Your task to perform on an android device: What's the news in Brazil? Image 0: 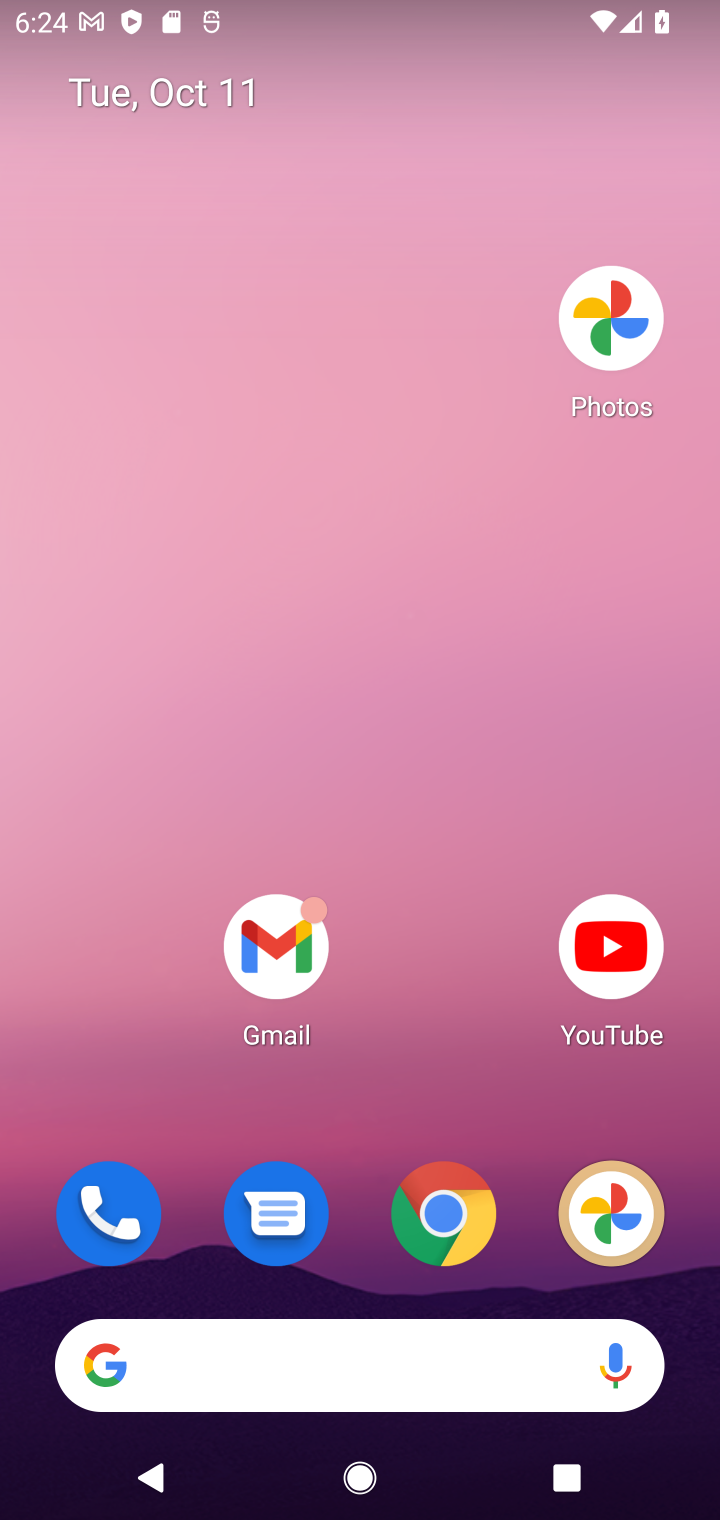
Step 0: drag from (387, 1024) to (457, 134)
Your task to perform on an android device: What's the news in Brazil? Image 1: 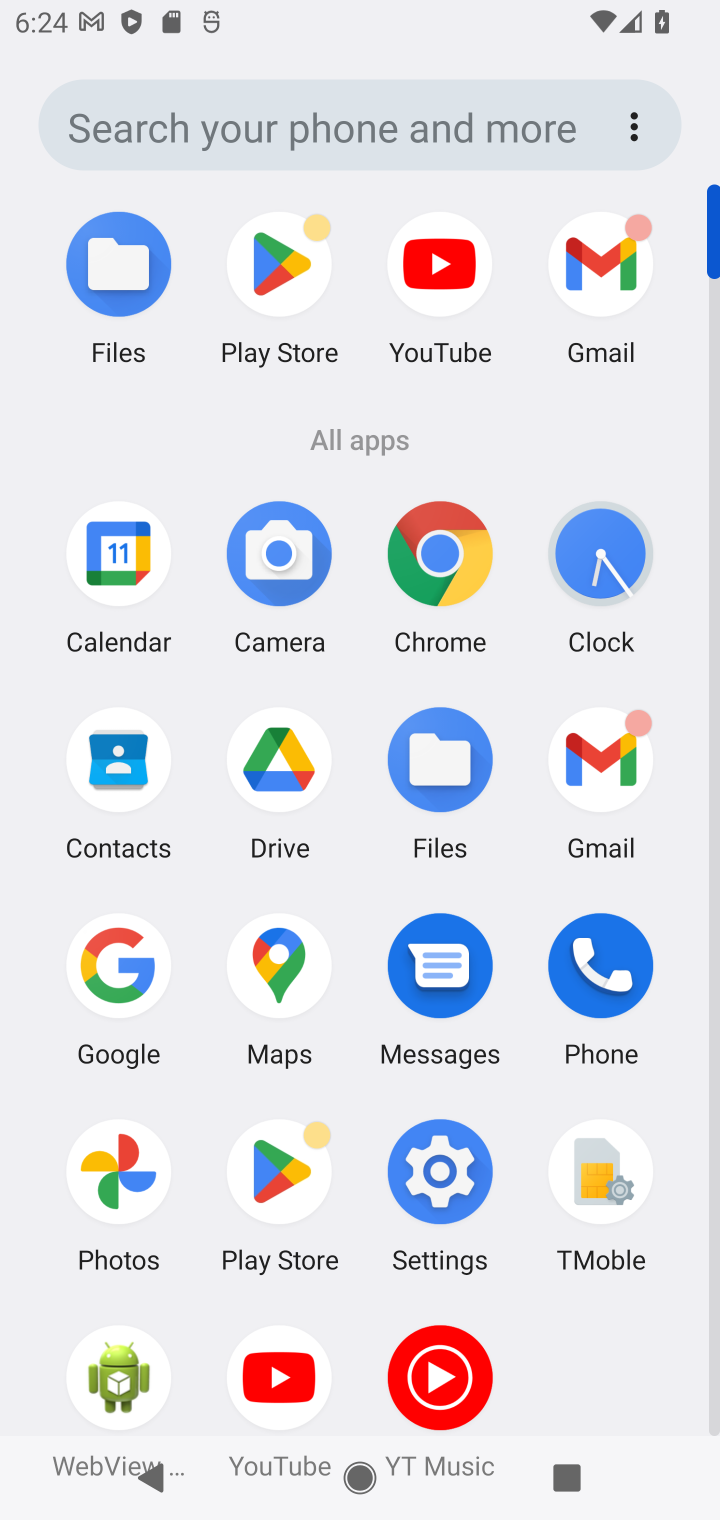
Step 1: click (463, 552)
Your task to perform on an android device: What's the news in Brazil? Image 2: 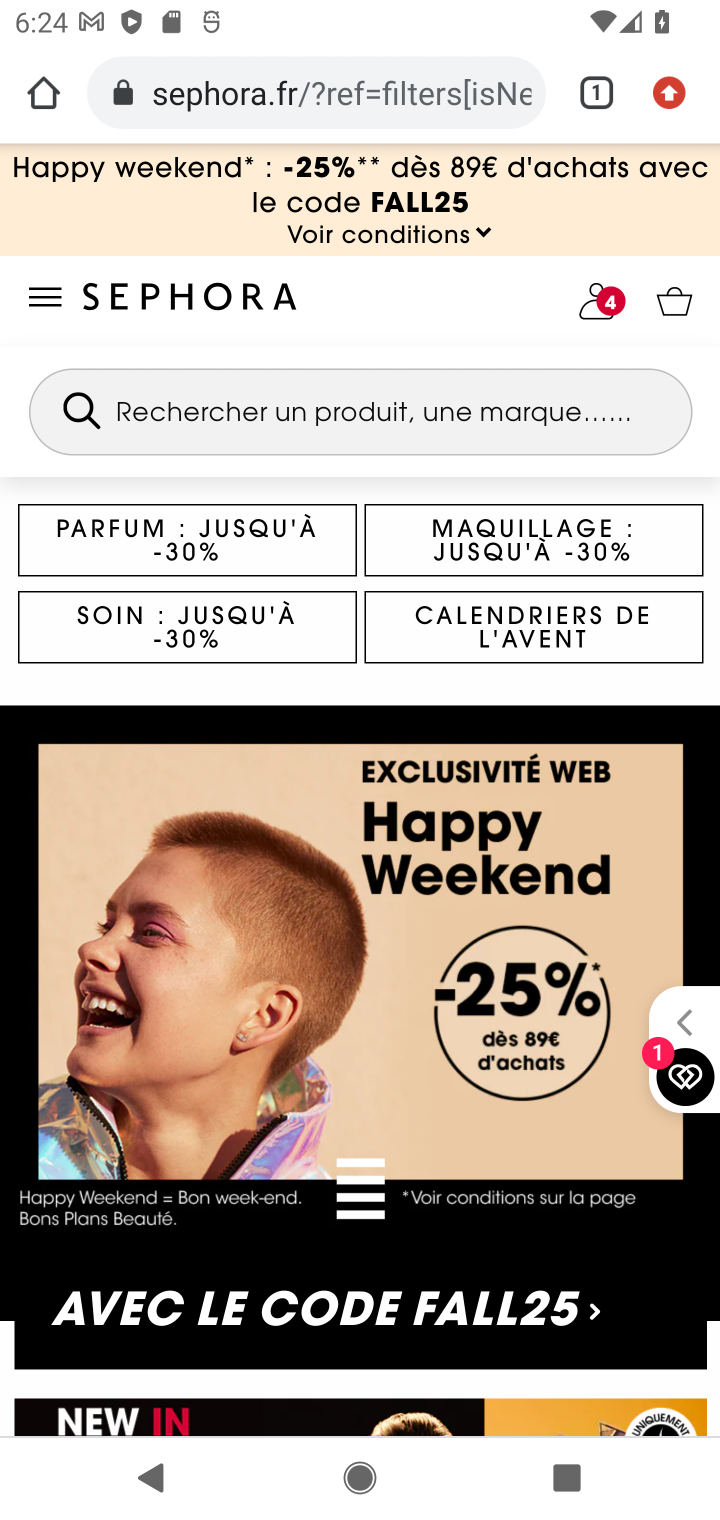
Step 2: click (299, 73)
Your task to perform on an android device: What's the news in Brazil? Image 3: 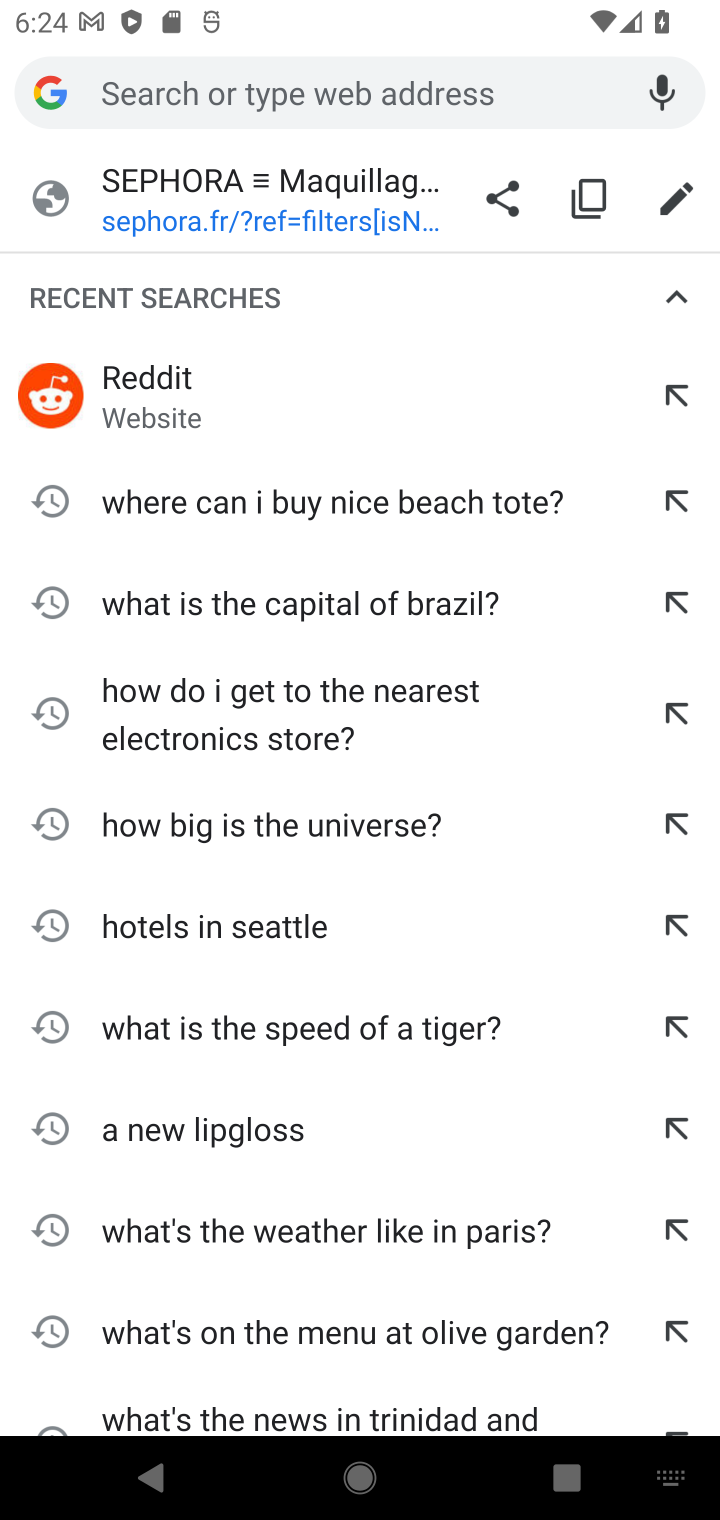
Step 3: type "What's the news in Brazil?"
Your task to perform on an android device: What's the news in Brazil? Image 4: 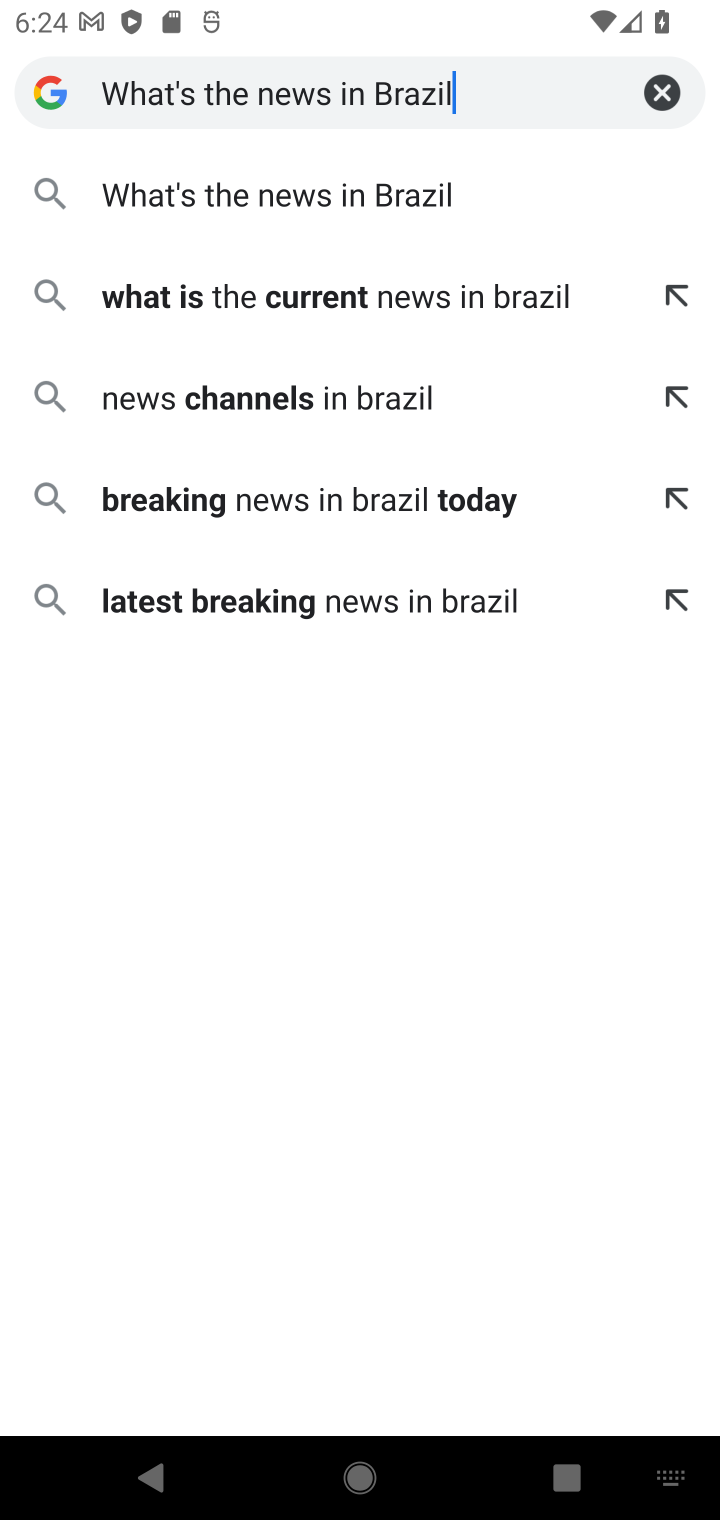
Step 4: type ""
Your task to perform on an android device: What's the news in Brazil? Image 5: 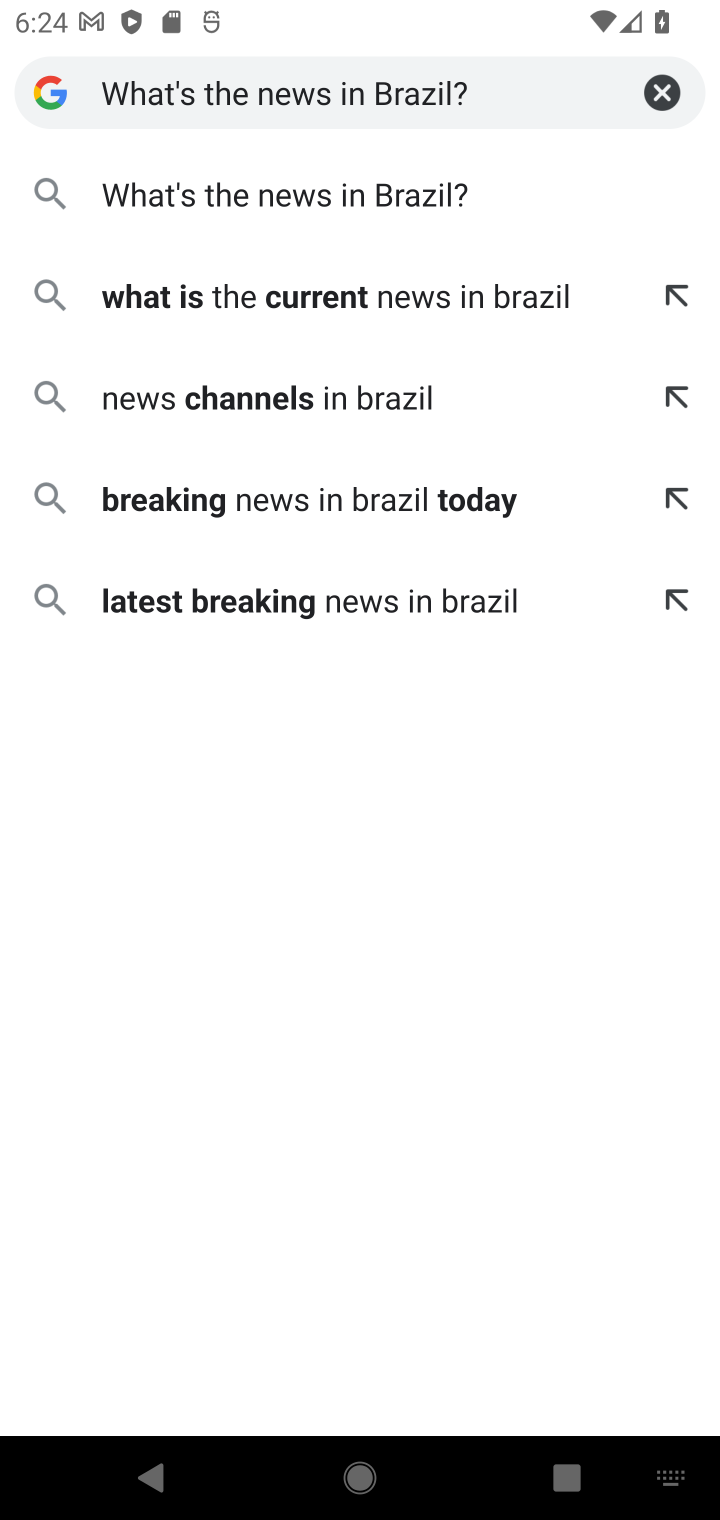
Step 5: press enter
Your task to perform on an android device: What's the news in Brazil? Image 6: 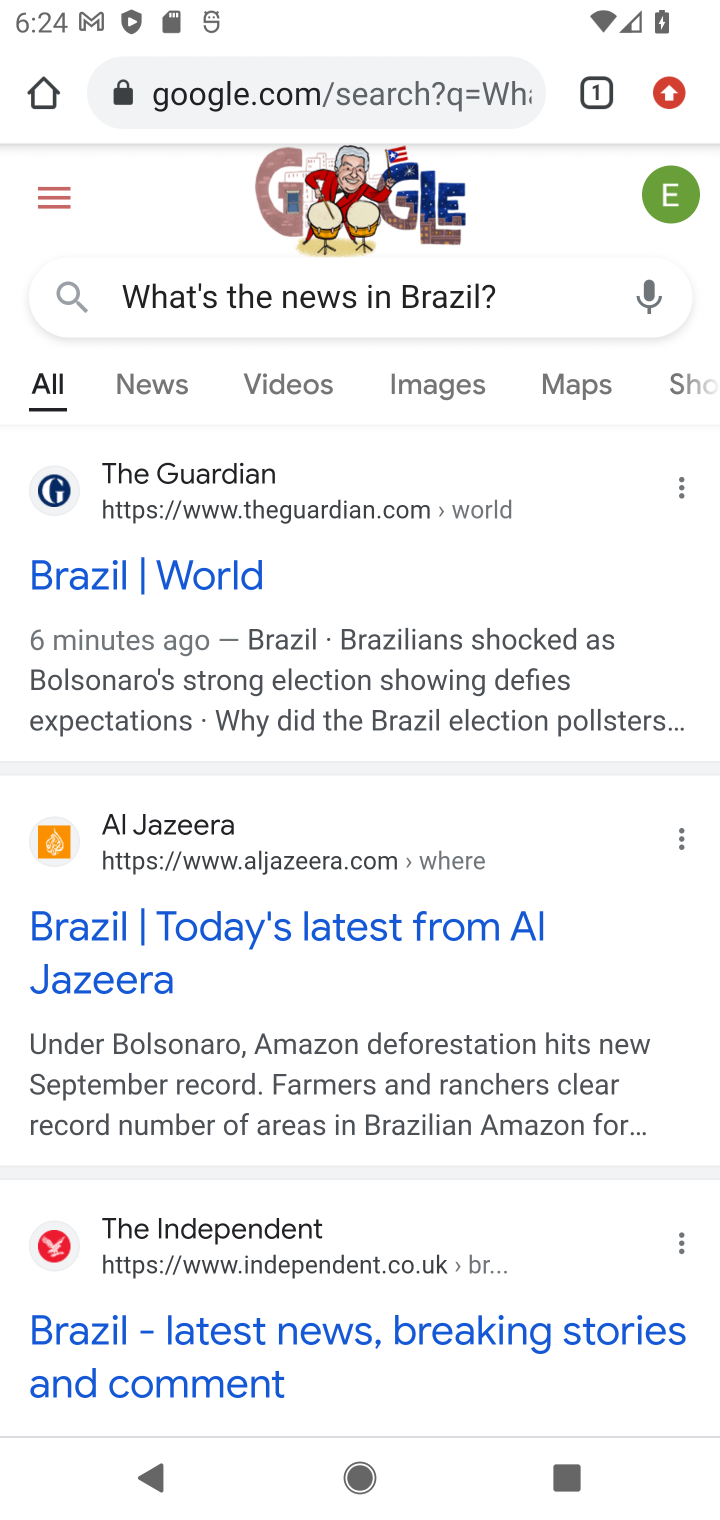
Step 6: click (151, 565)
Your task to perform on an android device: What's the news in Brazil? Image 7: 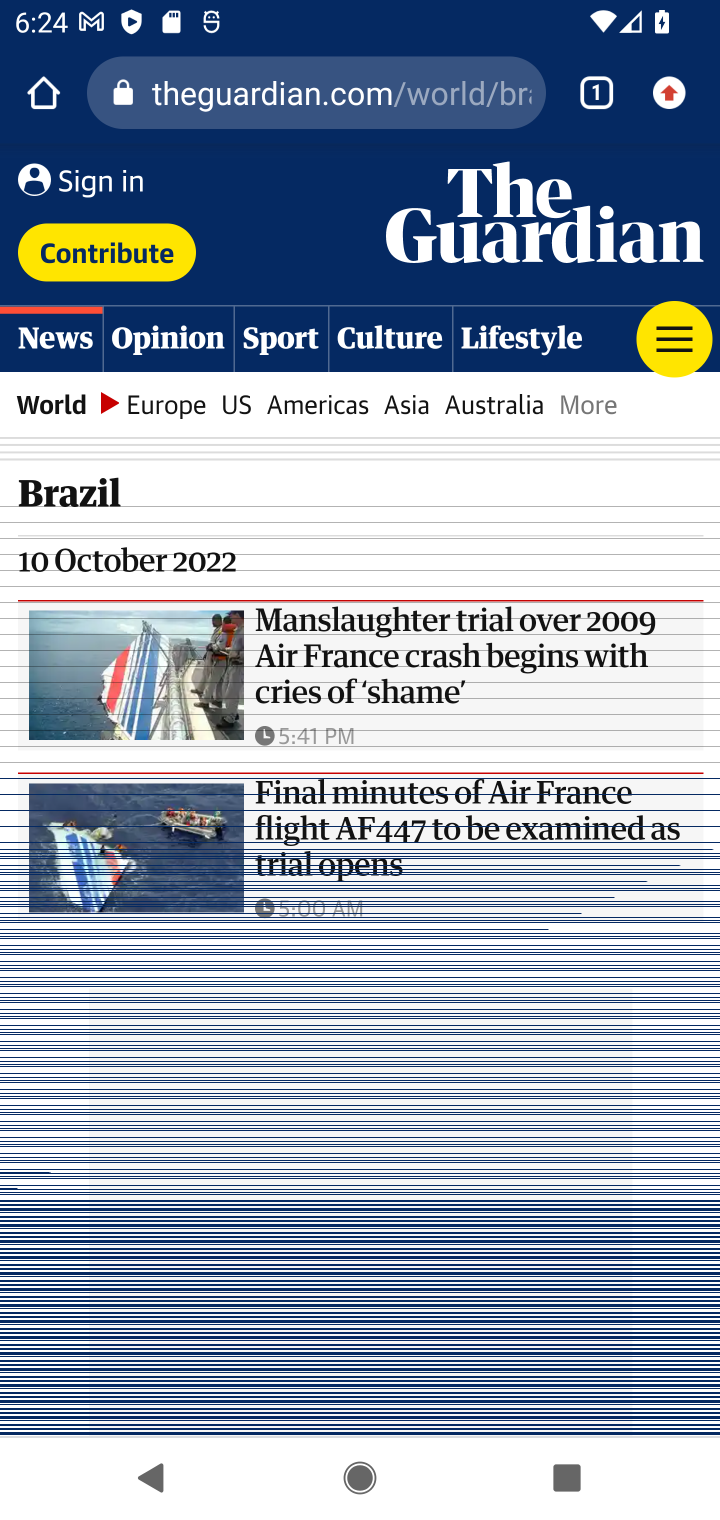
Step 7: drag from (632, 976) to (569, 344)
Your task to perform on an android device: What's the news in Brazil? Image 8: 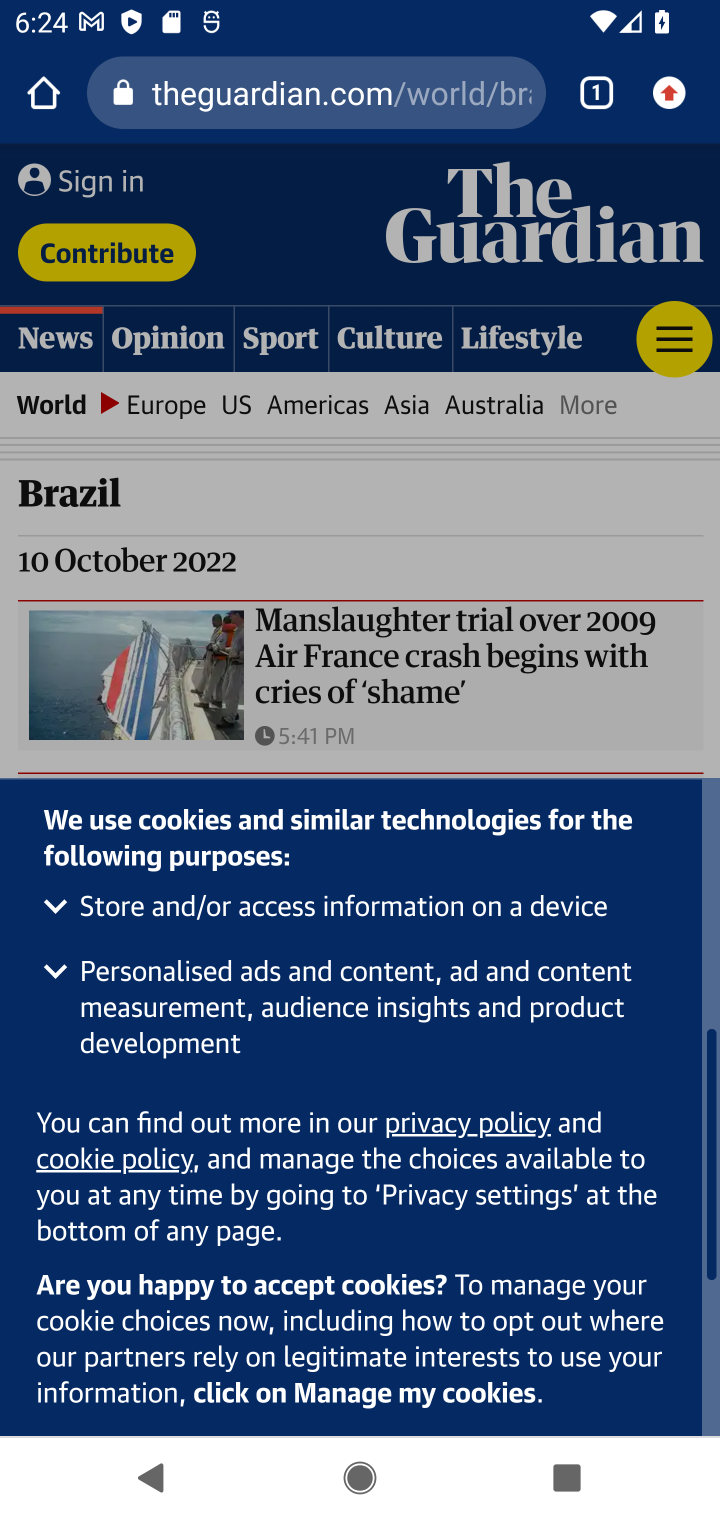
Step 8: drag from (558, 662) to (565, 353)
Your task to perform on an android device: What's the news in Brazil? Image 9: 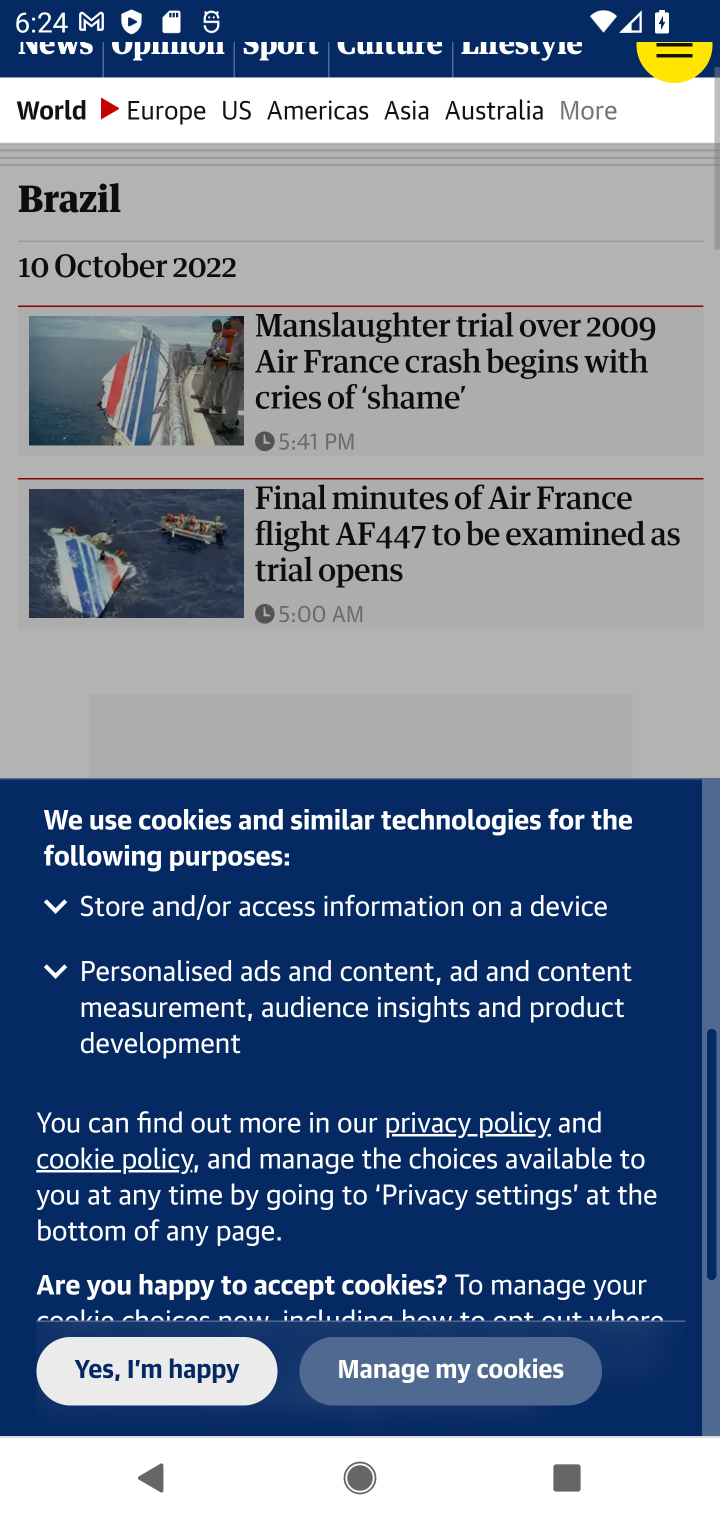
Step 9: click (558, 712)
Your task to perform on an android device: What's the news in Brazil? Image 10: 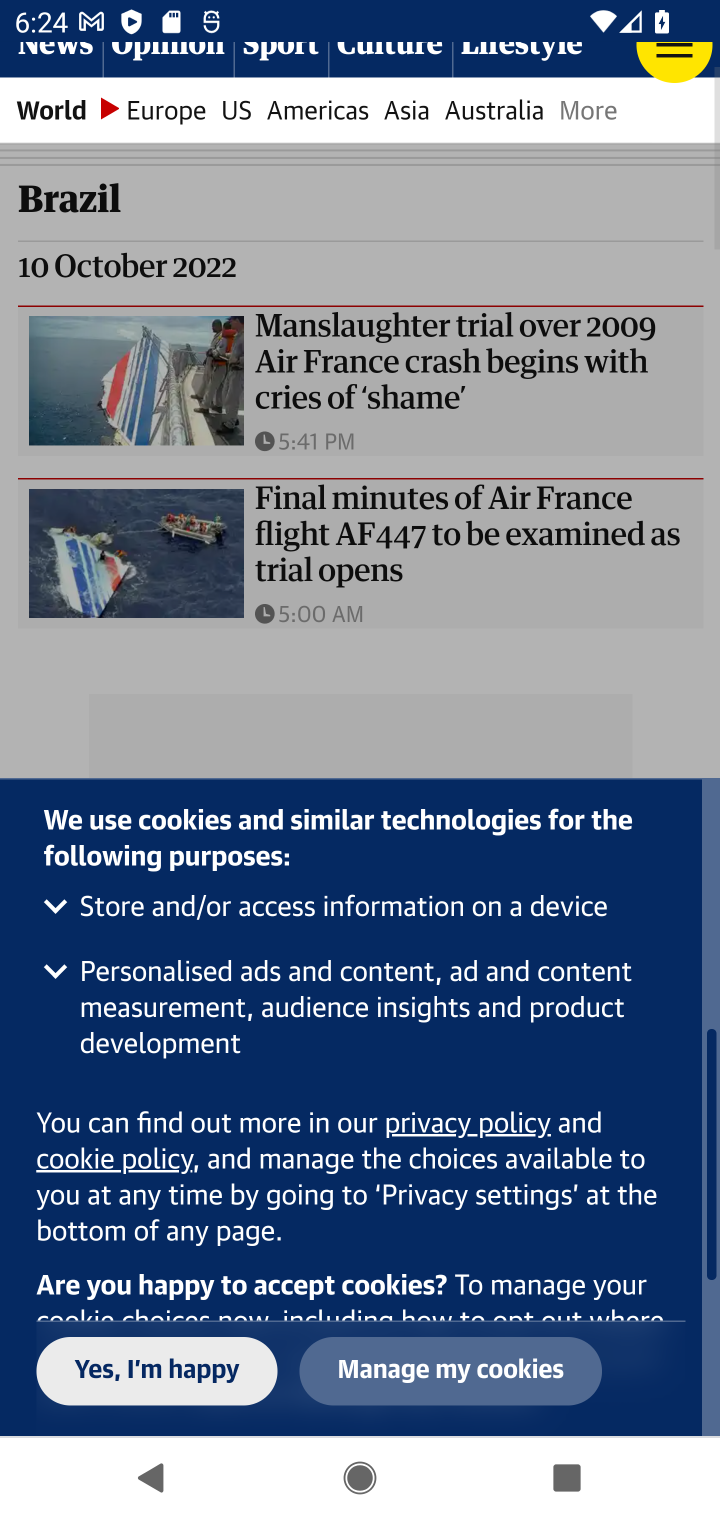
Step 10: drag from (552, 522) to (612, 264)
Your task to perform on an android device: What's the news in Brazil? Image 11: 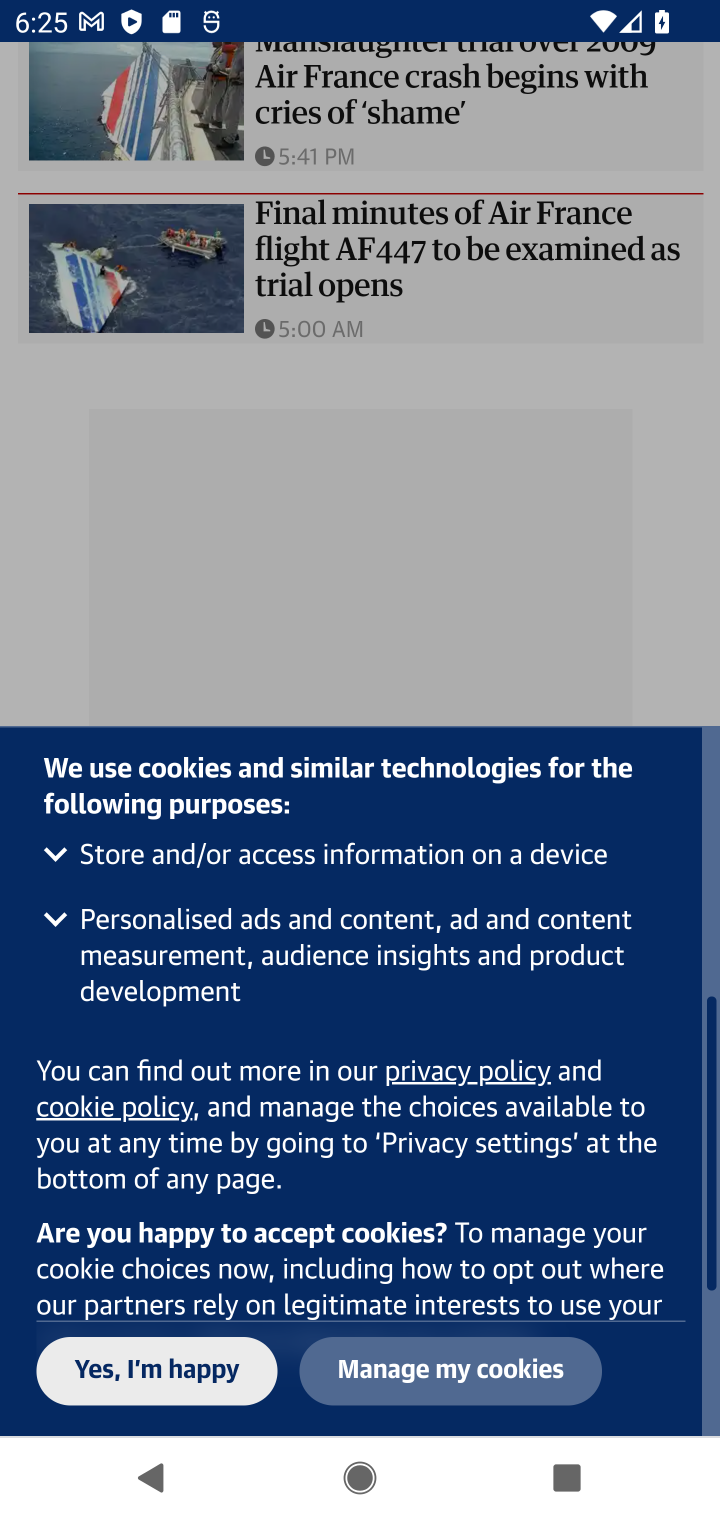
Step 11: click (274, 1368)
Your task to perform on an android device: What's the news in Brazil? Image 12: 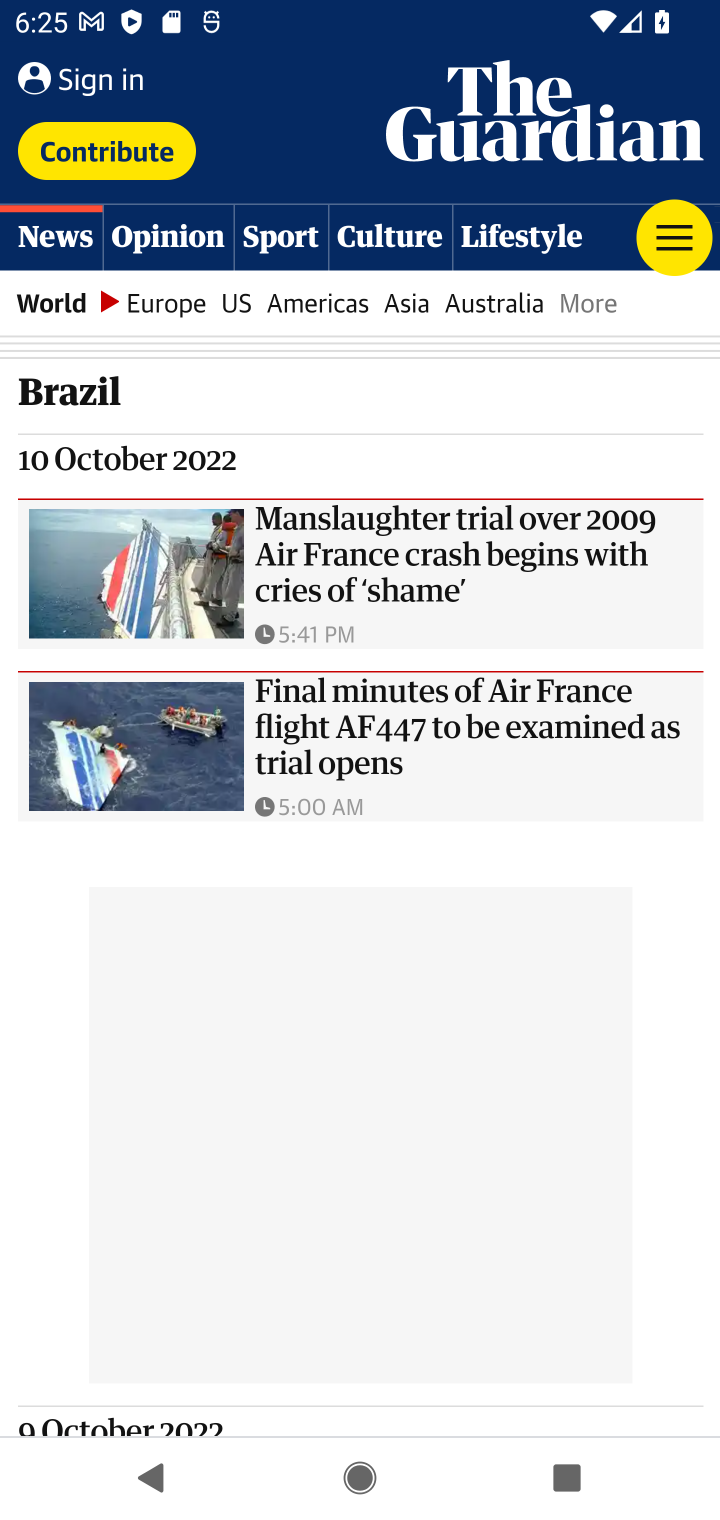
Step 12: drag from (278, 1273) to (571, 179)
Your task to perform on an android device: What's the news in Brazil? Image 13: 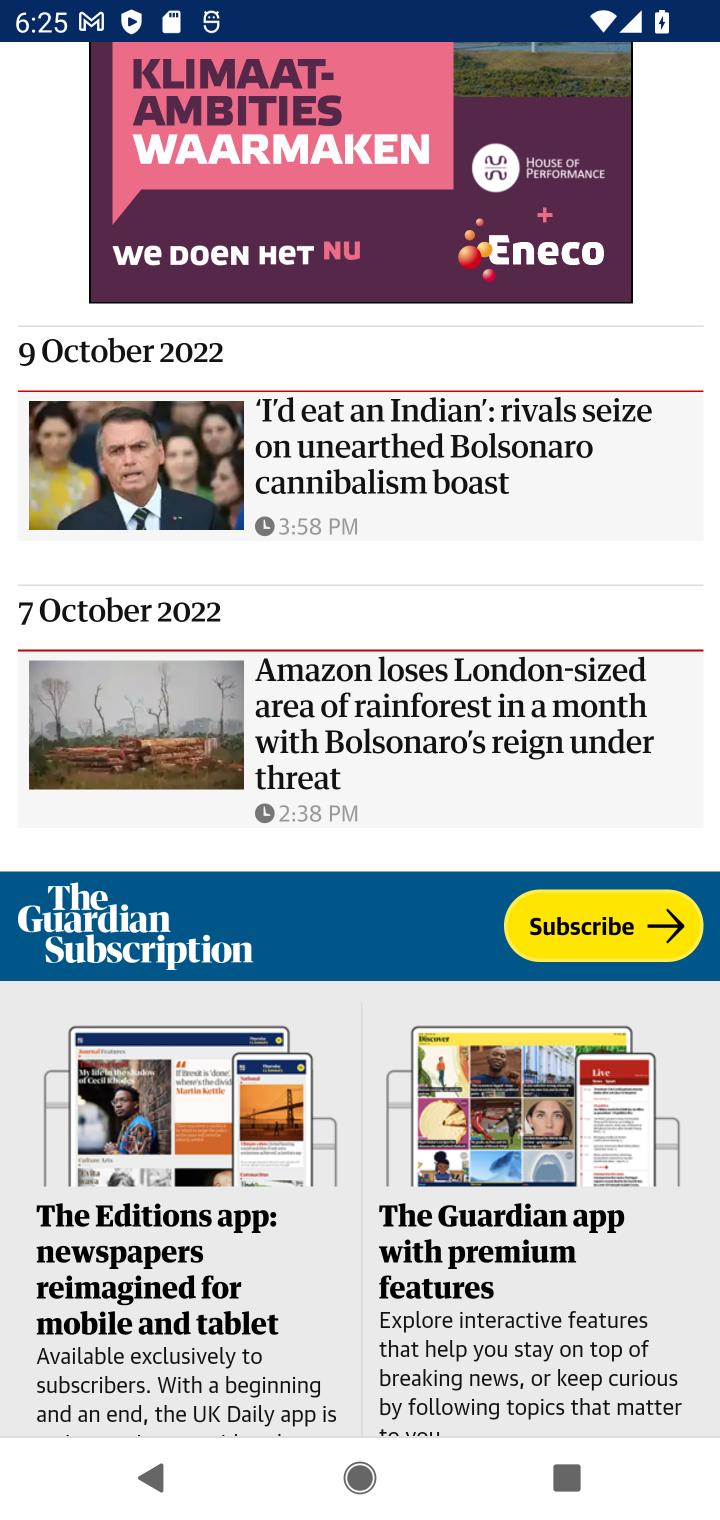
Step 13: drag from (561, 705) to (570, 22)
Your task to perform on an android device: What's the news in Brazil? Image 14: 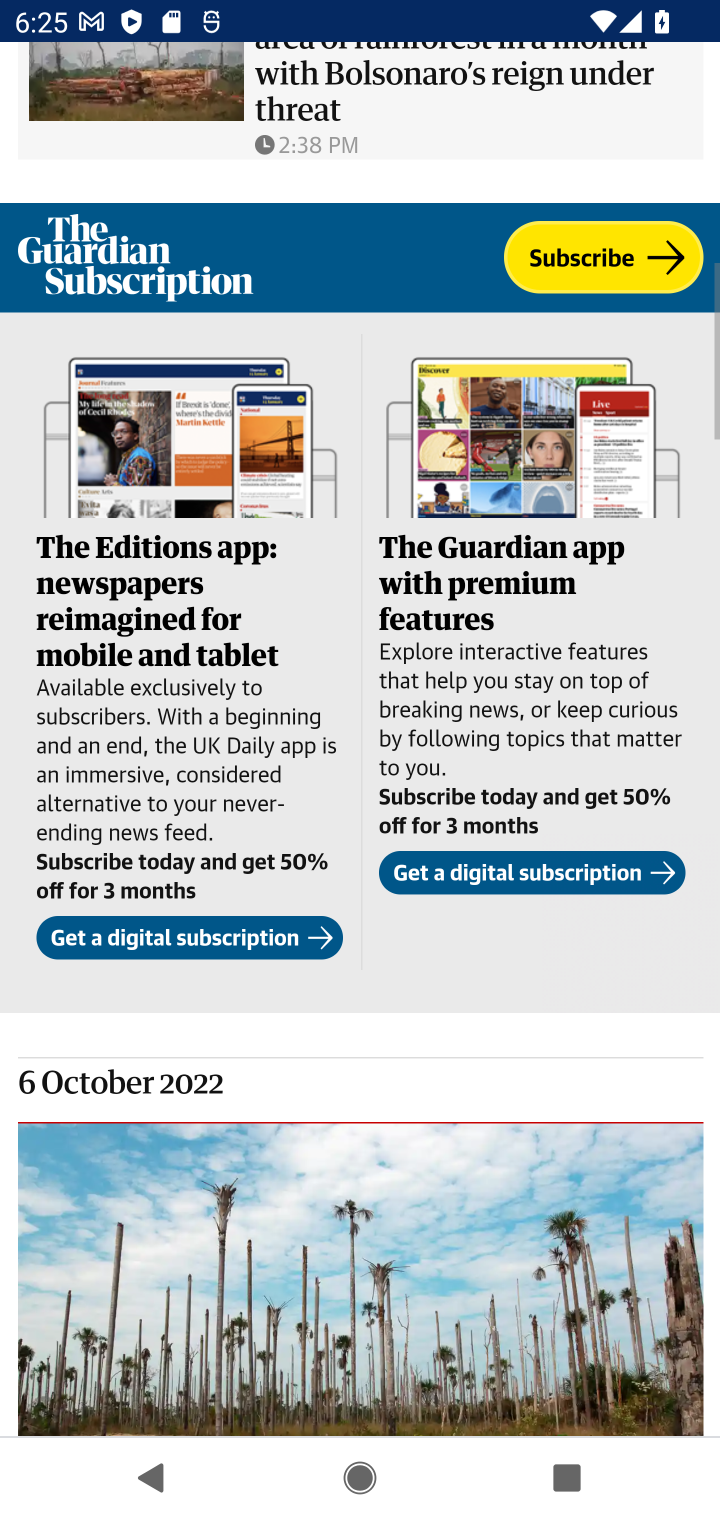
Step 14: drag from (545, 973) to (606, 401)
Your task to perform on an android device: What's the news in Brazil? Image 15: 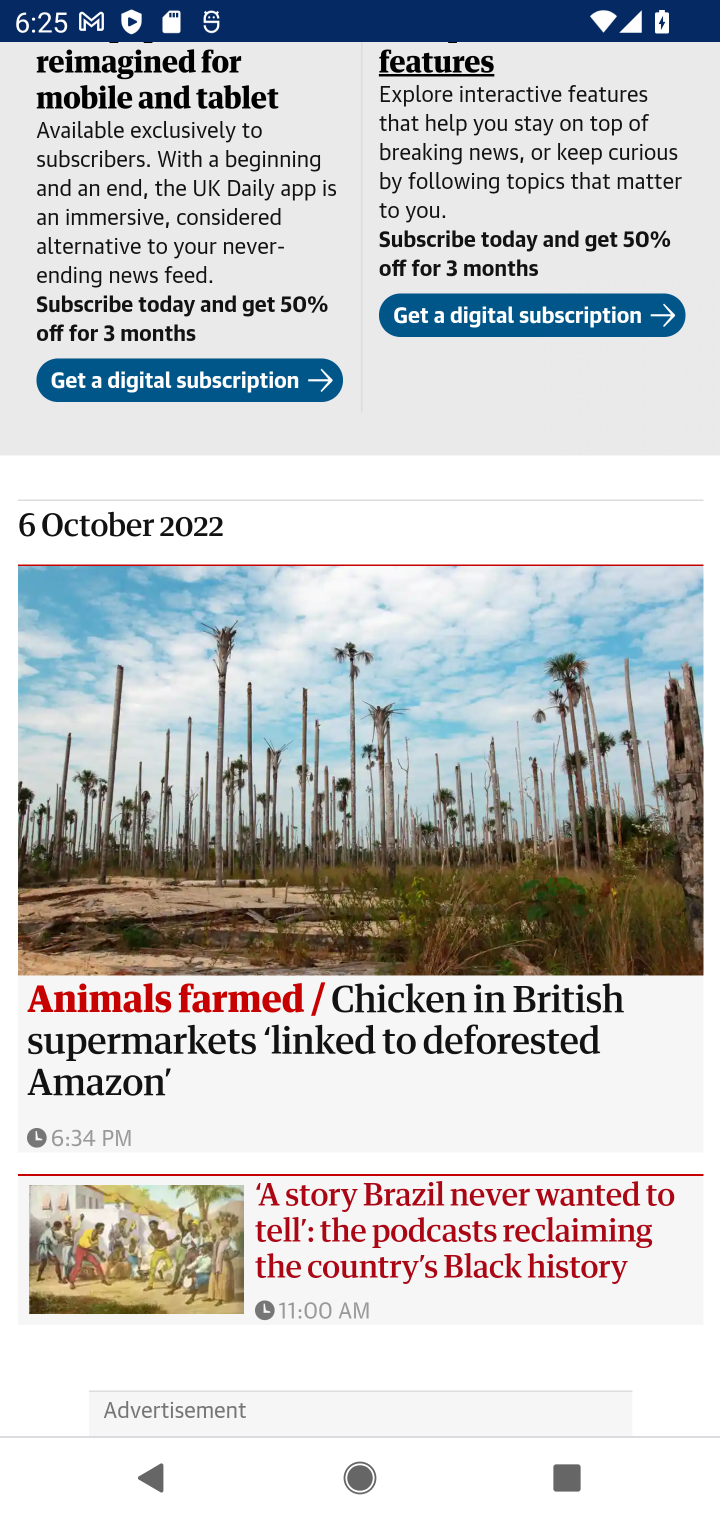
Step 15: drag from (537, 1064) to (697, 316)
Your task to perform on an android device: What's the news in Brazil? Image 16: 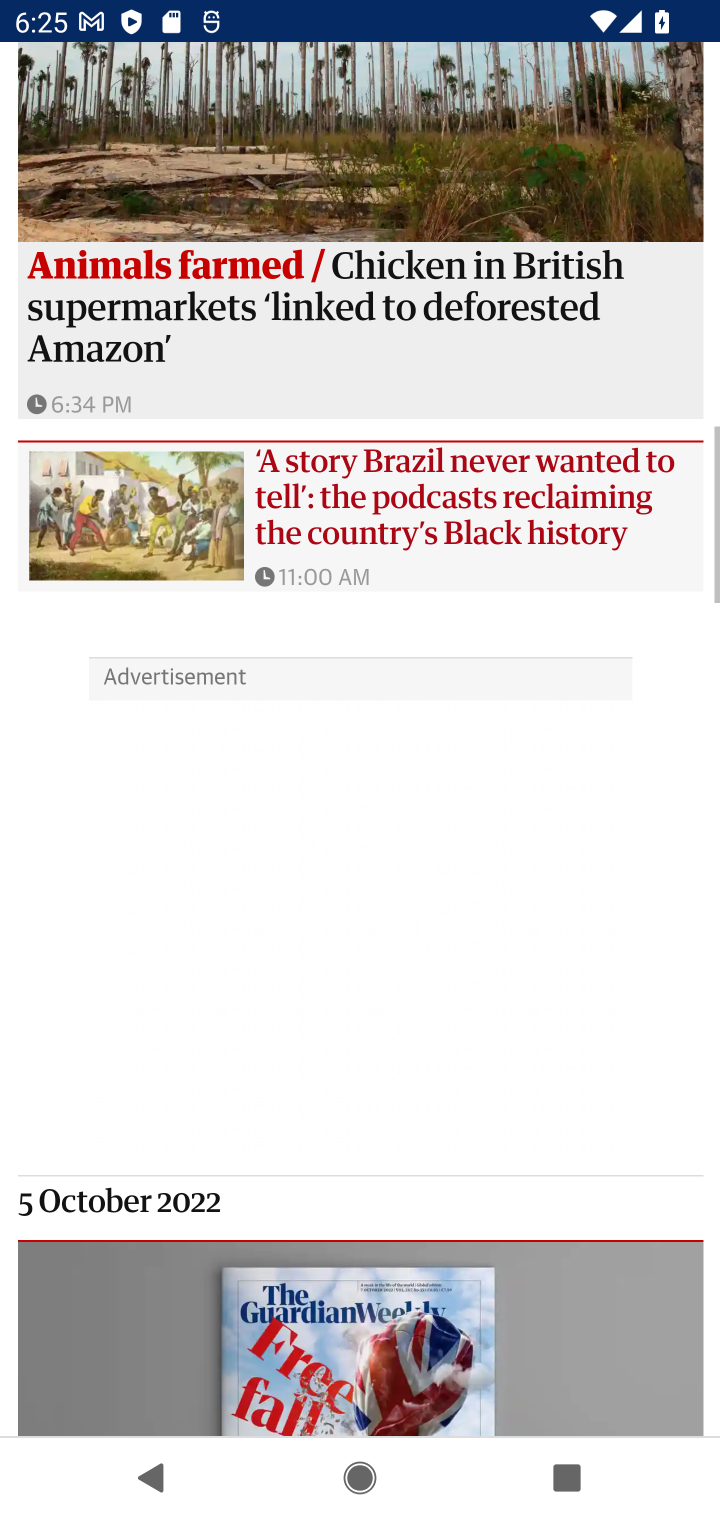
Step 16: drag from (551, 617) to (594, 203)
Your task to perform on an android device: What's the news in Brazil? Image 17: 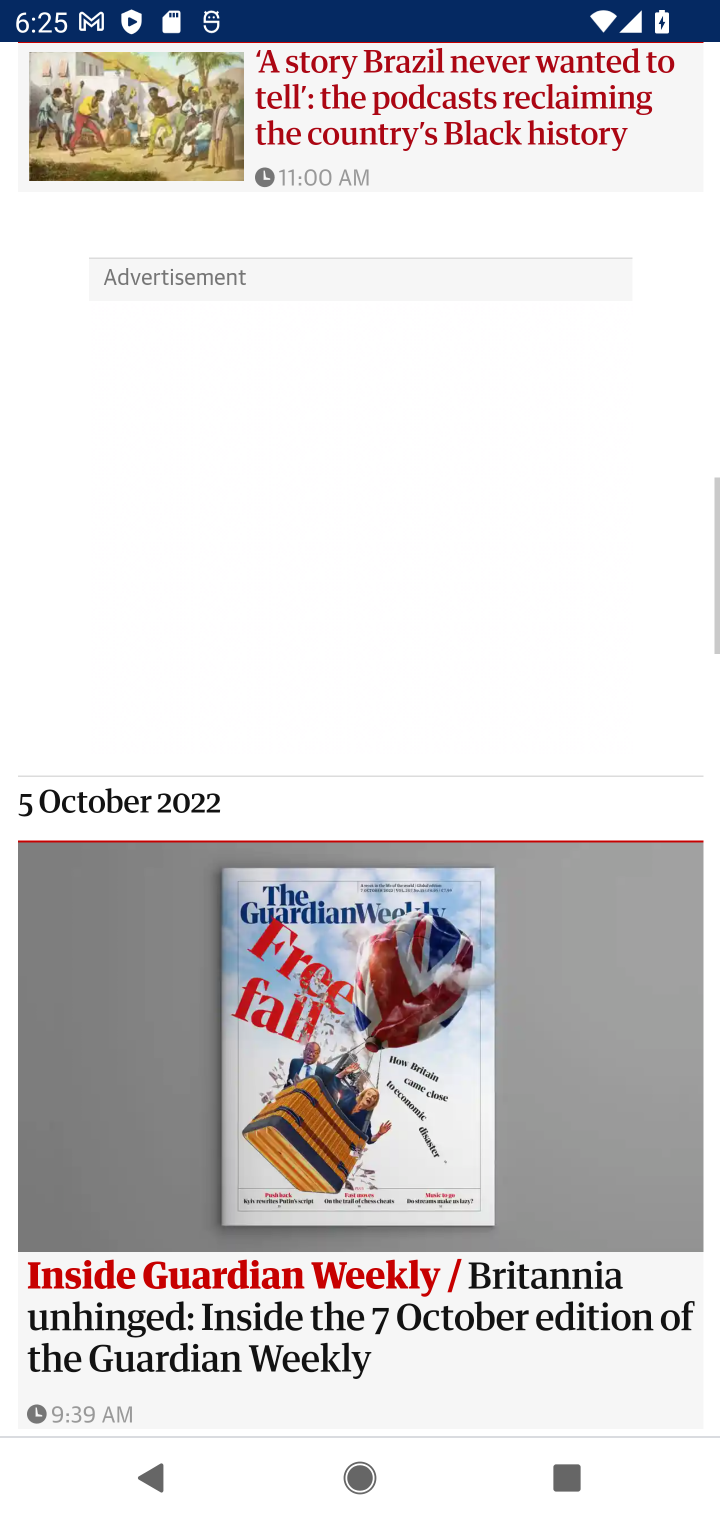
Step 17: drag from (617, 907) to (622, 374)
Your task to perform on an android device: What's the news in Brazil? Image 18: 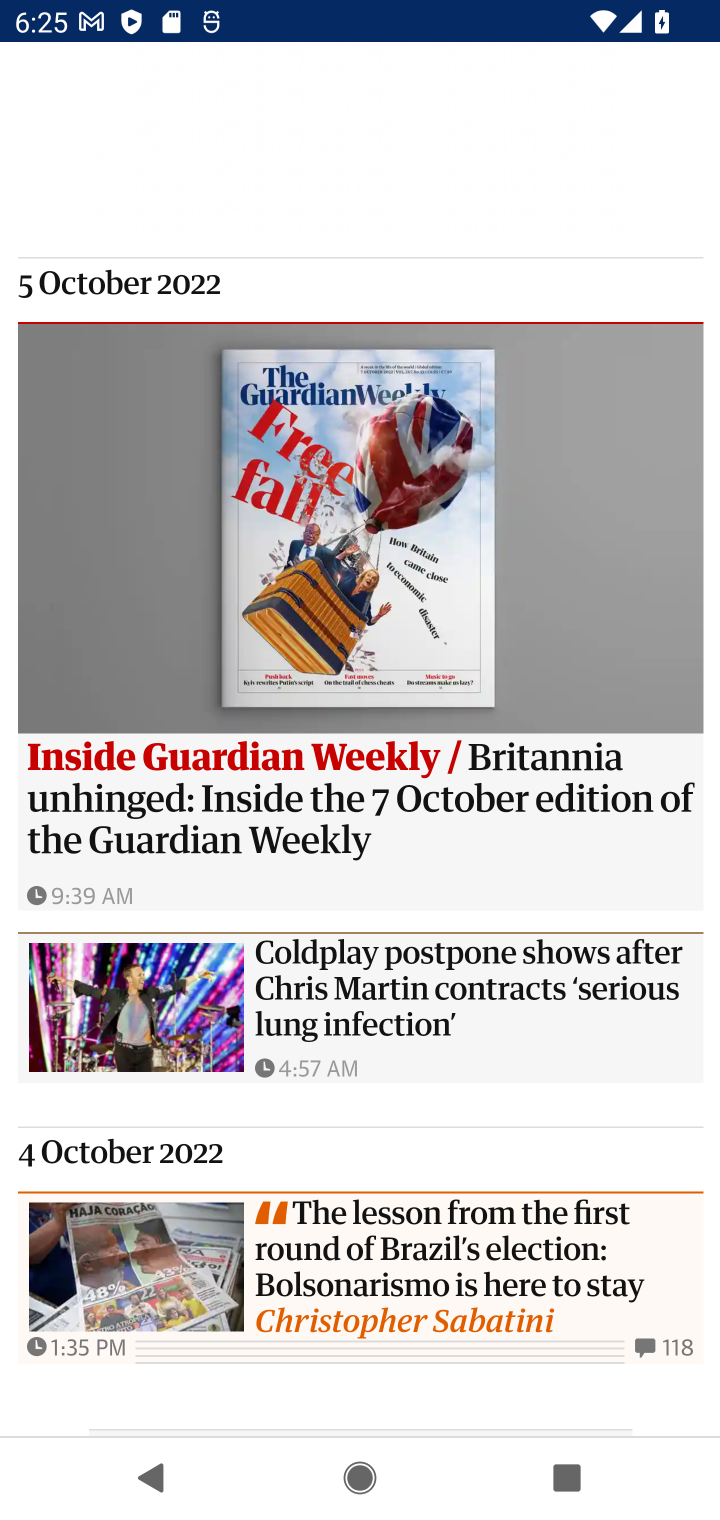
Step 18: drag from (135, 689) to (202, 373)
Your task to perform on an android device: What's the news in Brazil? Image 19: 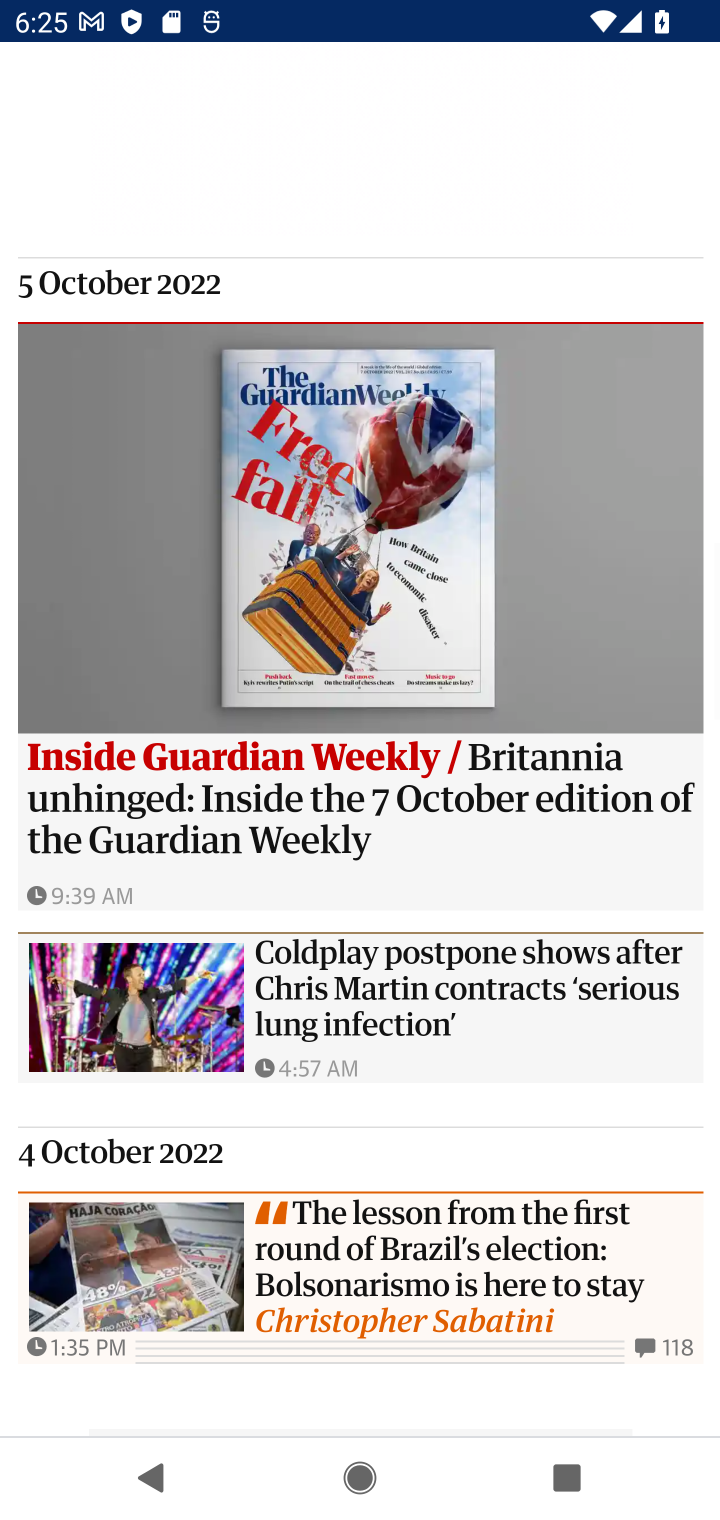
Step 19: drag from (324, 445) to (441, 548)
Your task to perform on an android device: What's the news in Brazil? Image 20: 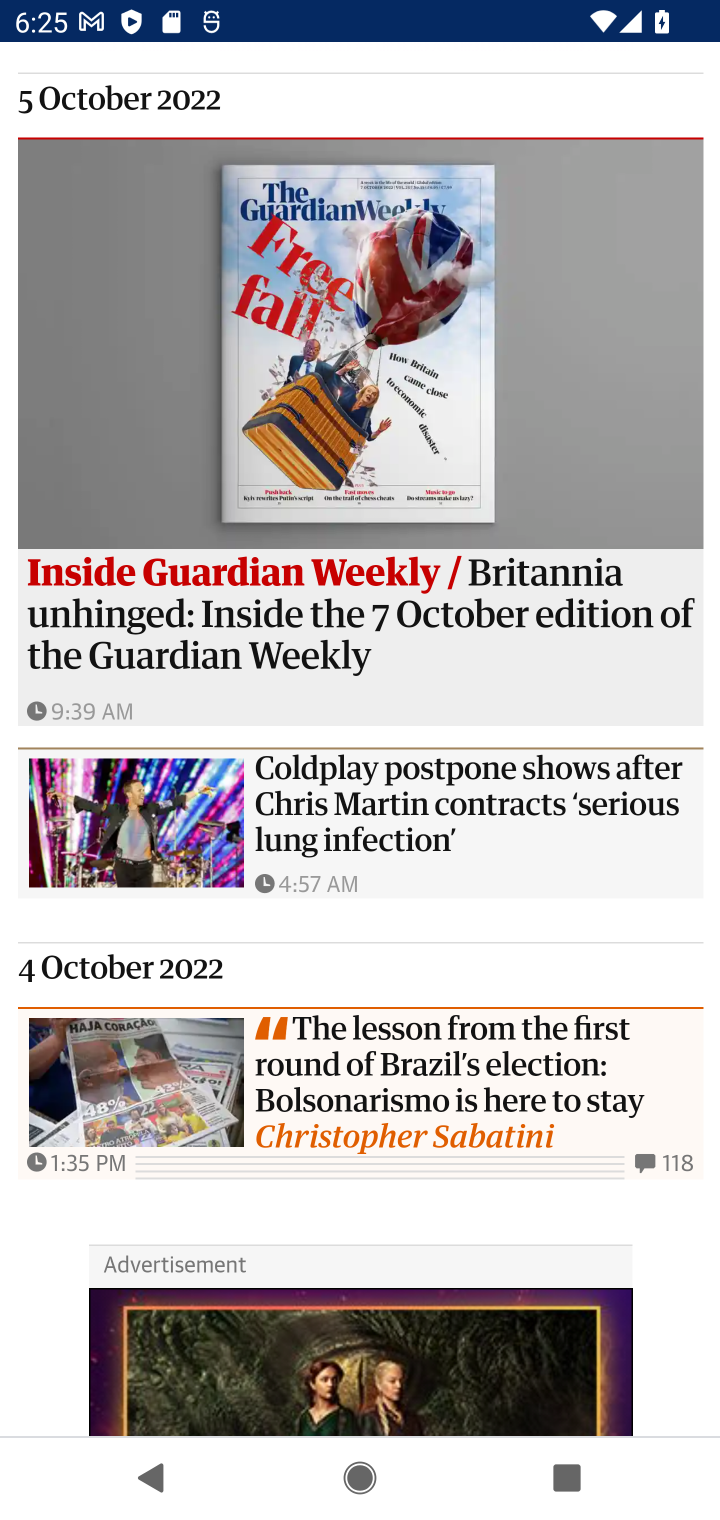
Step 20: drag from (381, 1051) to (428, 195)
Your task to perform on an android device: What's the news in Brazil? Image 21: 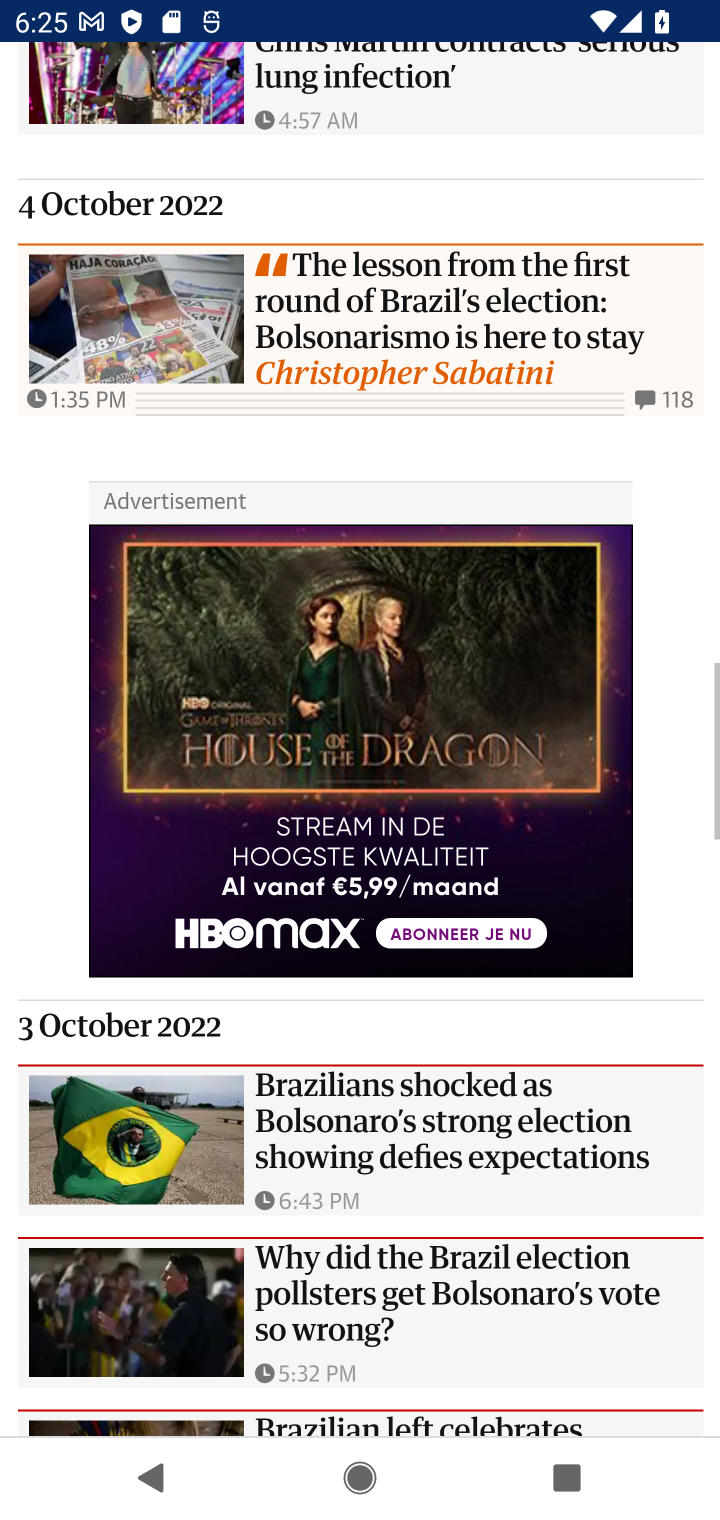
Step 21: drag from (459, 889) to (467, 250)
Your task to perform on an android device: What's the news in Brazil? Image 22: 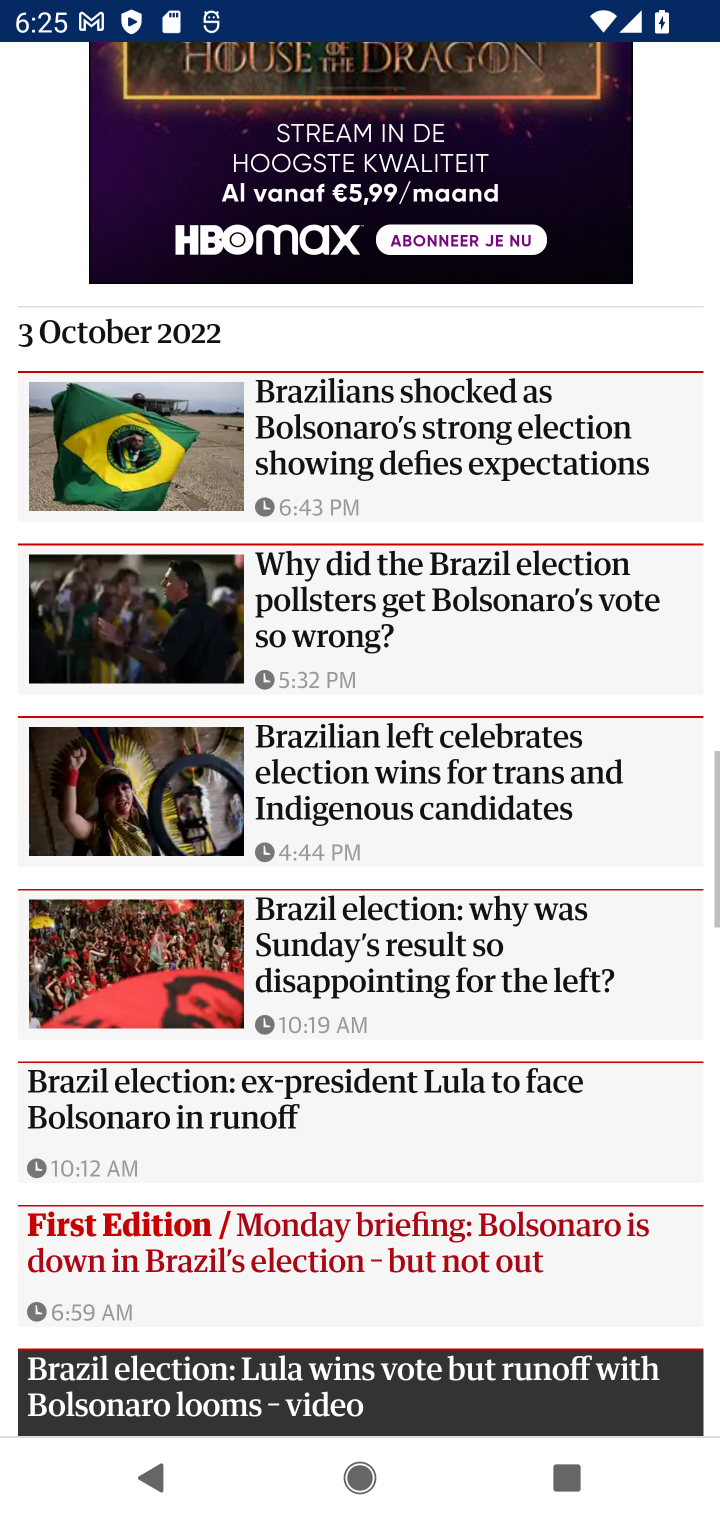
Step 22: click (482, 505)
Your task to perform on an android device: What's the news in Brazil? Image 23: 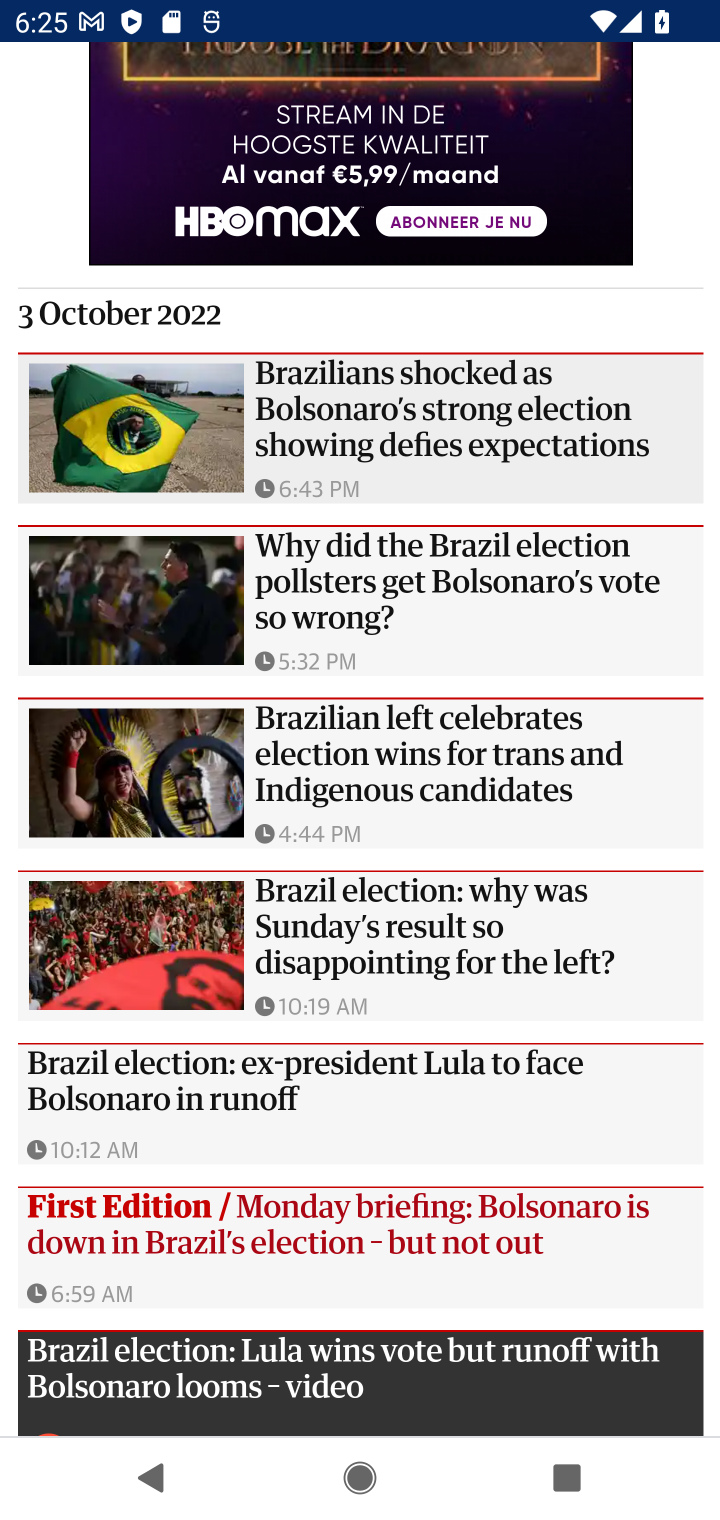
Step 23: drag from (567, 1001) to (607, 273)
Your task to perform on an android device: What's the news in Brazil? Image 24: 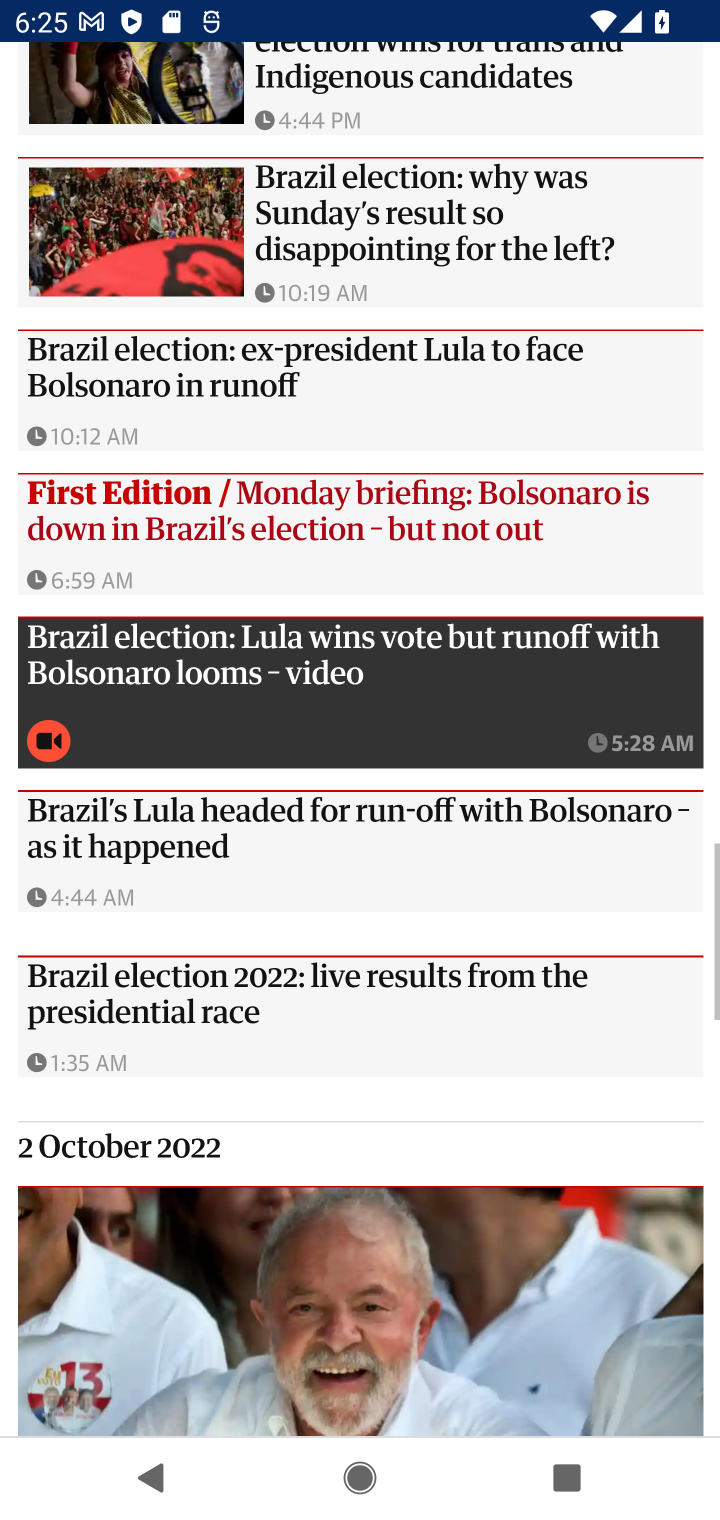
Step 24: click (586, 489)
Your task to perform on an android device: What's the news in Brazil? Image 25: 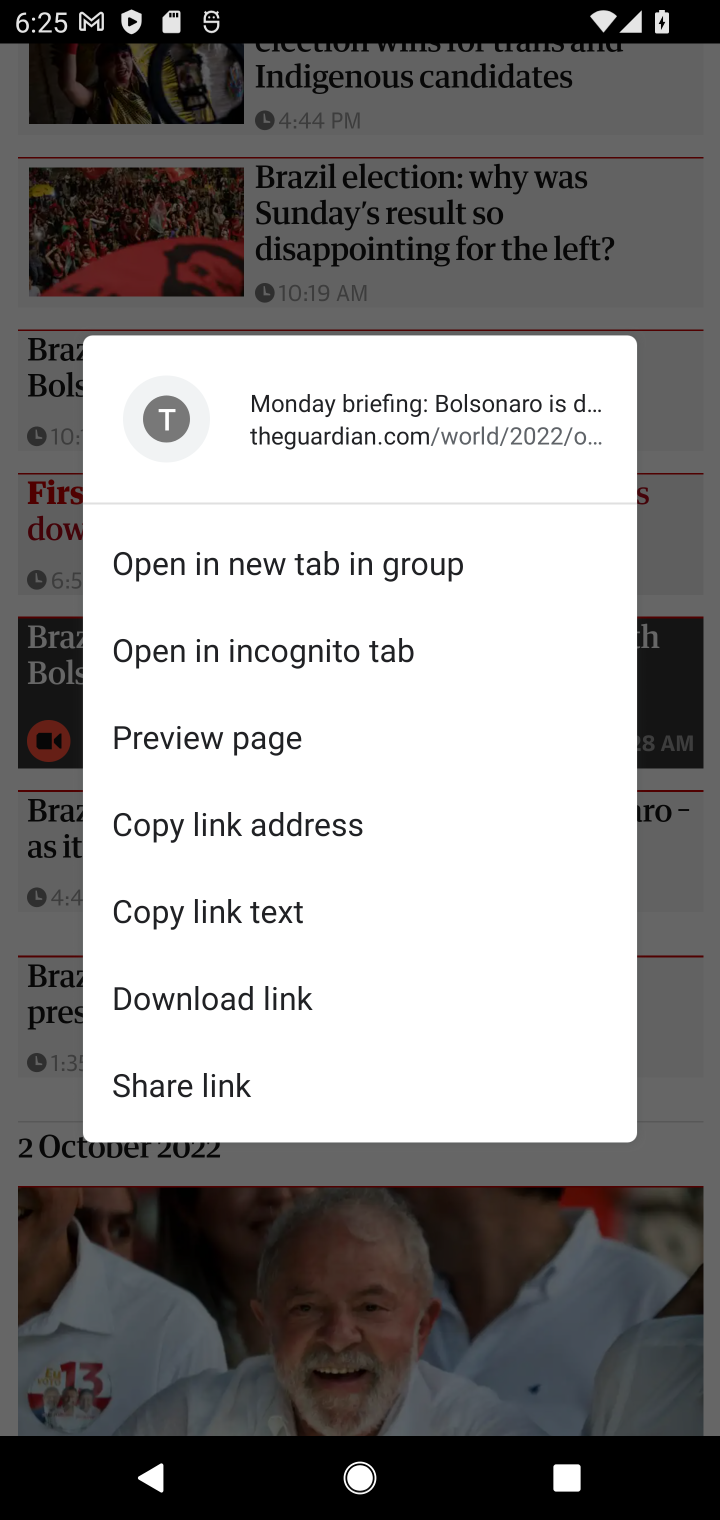
Step 25: click (522, 234)
Your task to perform on an android device: What's the news in Brazil? Image 26: 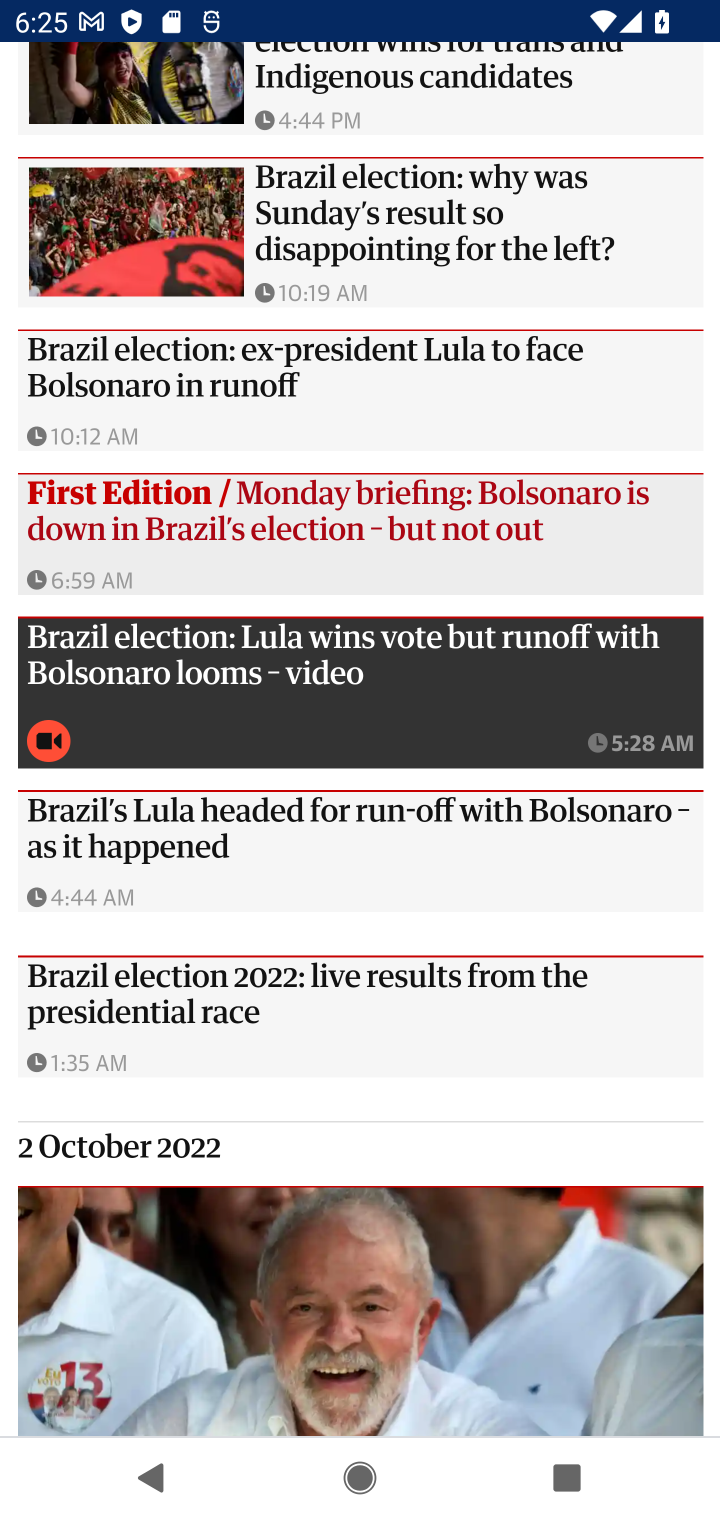
Step 26: task complete